Your task to perform on an android device: turn on the 24-hour format for clock Image 0: 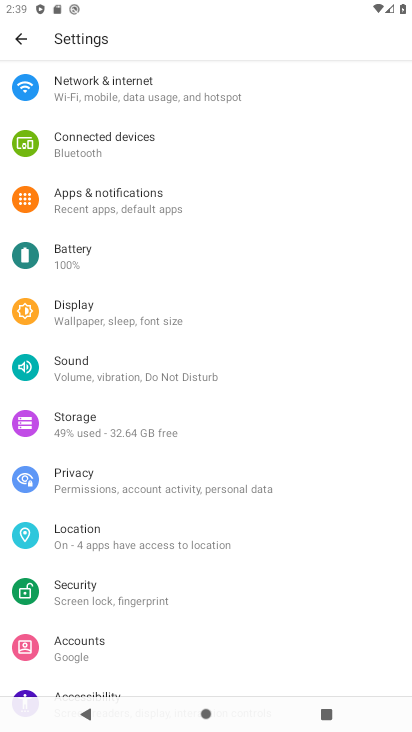
Step 0: press home button
Your task to perform on an android device: turn on the 24-hour format for clock Image 1: 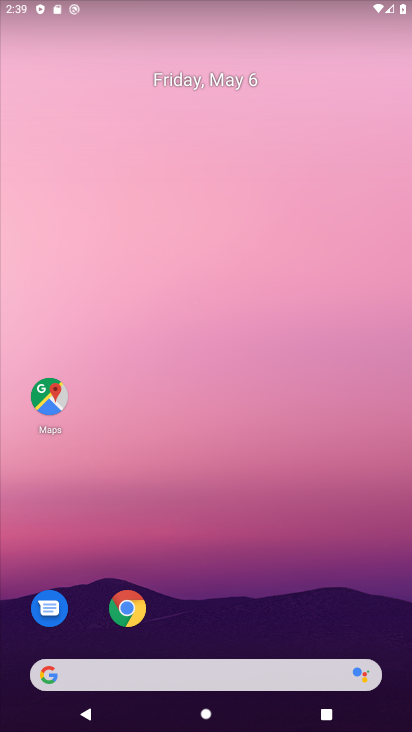
Step 1: drag from (229, 633) to (282, 137)
Your task to perform on an android device: turn on the 24-hour format for clock Image 2: 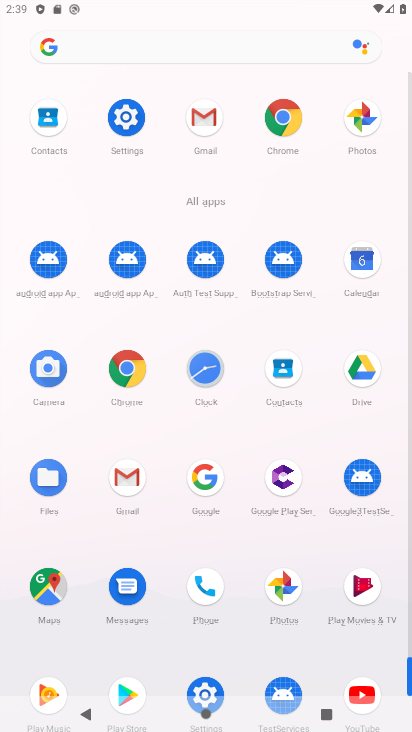
Step 2: click (216, 371)
Your task to perform on an android device: turn on the 24-hour format for clock Image 3: 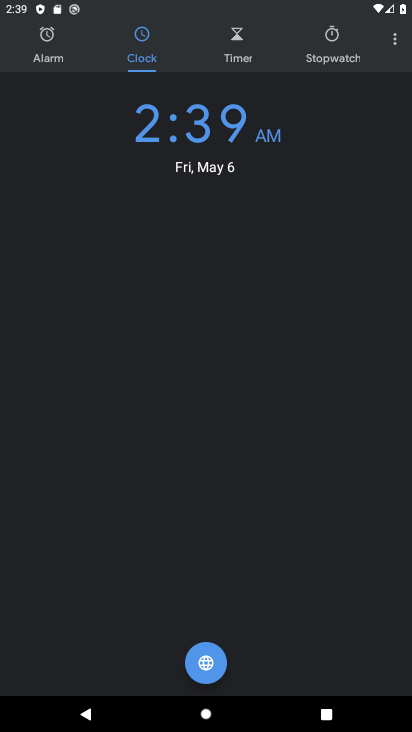
Step 3: press home button
Your task to perform on an android device: turn on the 24-hour format for clock Image 4: 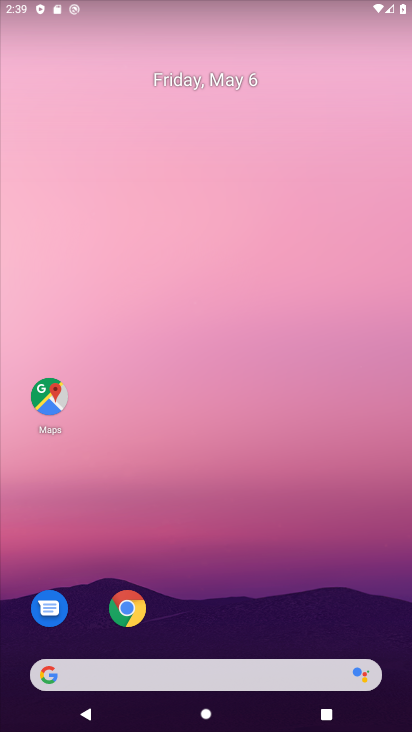
Step 4: drag from (201, 608) to (308, 134)
Your task to perform on an android device: turn on the 24-hour format for clock Image 5: 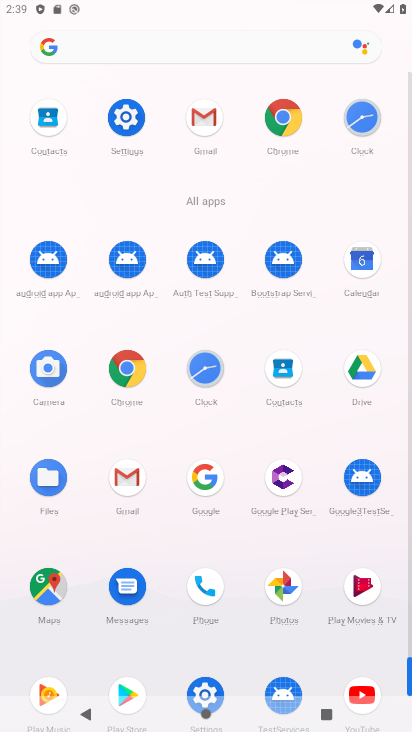
Step 5: drag from (225, 674) to (248, 389)
Your task to perform on an android device: turn on the 24-hour format for clock Image 6: 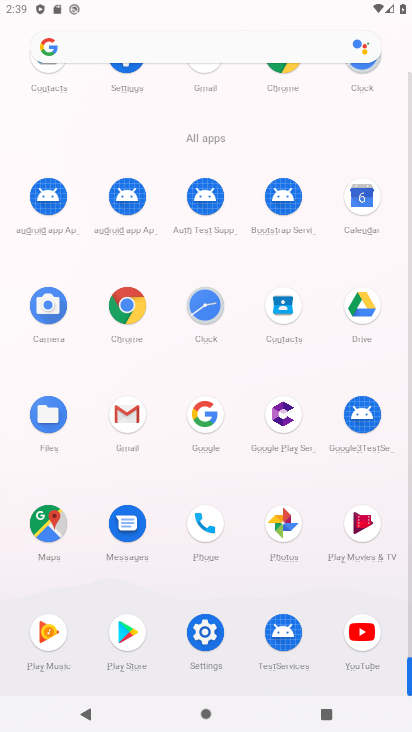
Step 6: click (208, 638)
Your task to perform on an android device: turn on the 24-hour format for clock Image 7: 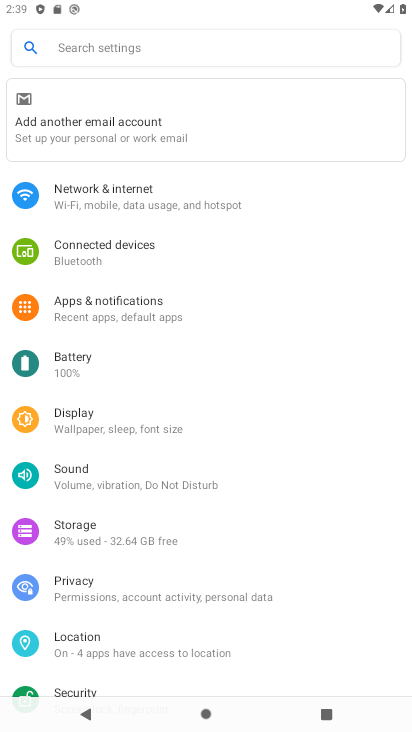
Step 7: drag from (174, 571) to (197, 273)
Your task to perform on an android device: turn on the 24-hour format for clock Image 8: 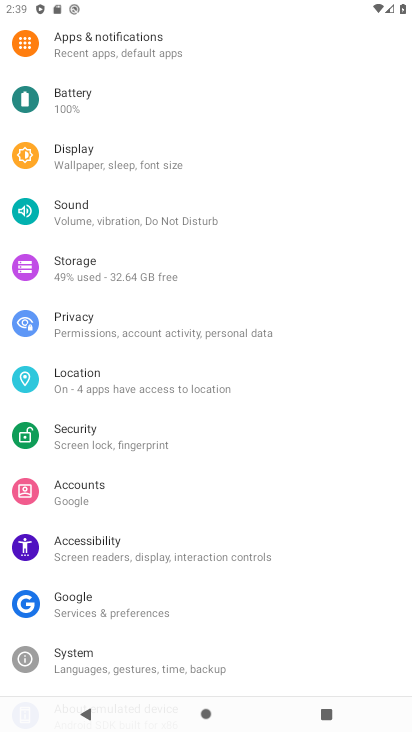
Step 8: click (100, 649)
Your task to perform on an android device: turn on the 24-hour format for clock Image 9: 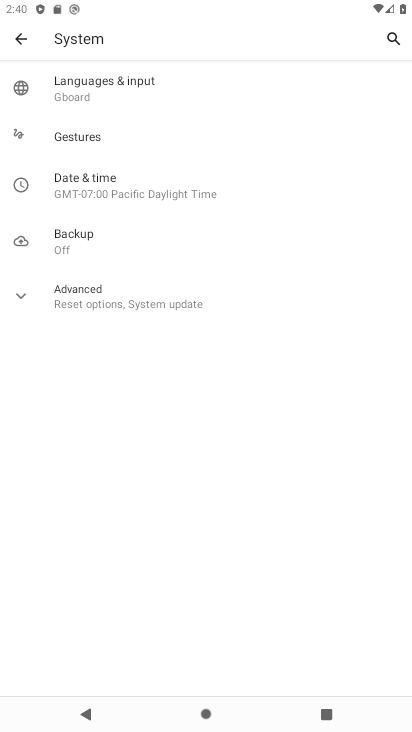
Step 9: click (148, 191)
Your task to perform on an android device: turn on the 24-hour format for clock Image 10: 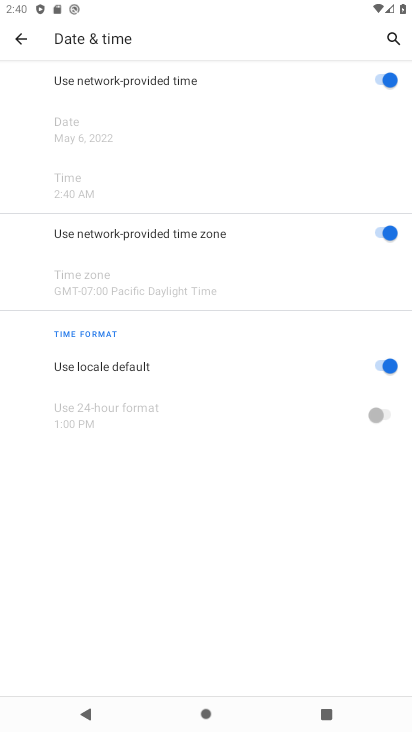
Step 10: click (373, 358)
Your task to perform on an android device: turn on the 24-hour format for clock Image 11: 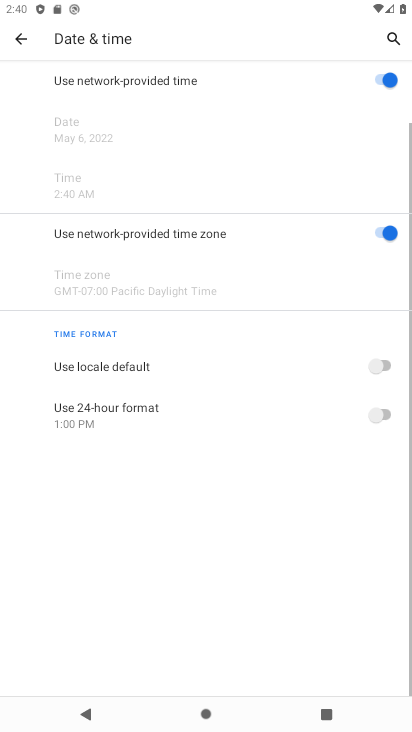
Step 11: click (391, 411)
Your task to perform on an android device: turn on the 24-hour format for clock Image 12: 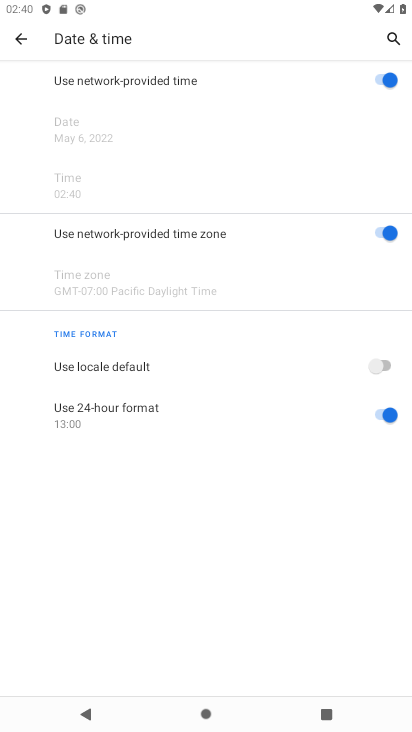
Step 12: task complete